Your task to perform on an android device: all mails in gmail Image 0: 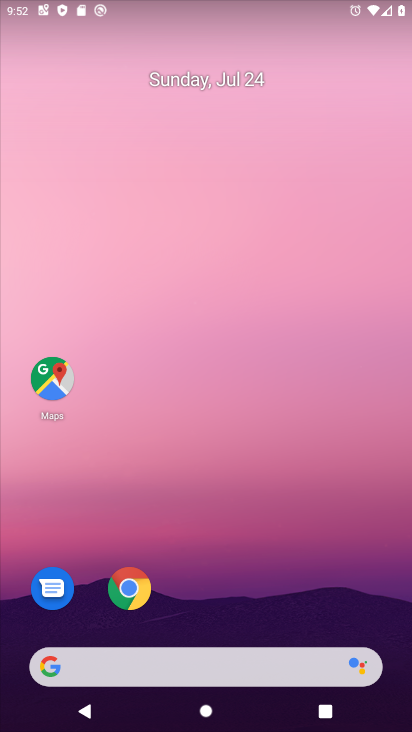
Step 0: drag from (242, 726) to (269, 164)
Your task to perform on an android device: all mails in gmail Image 1: 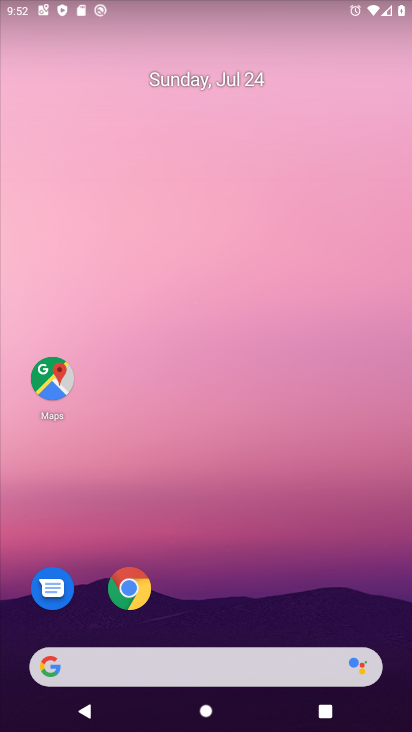
Step 1: drag from (264, 290) to (241, 141)
Your task to perform on an android device: all mails in gmail Image 2: 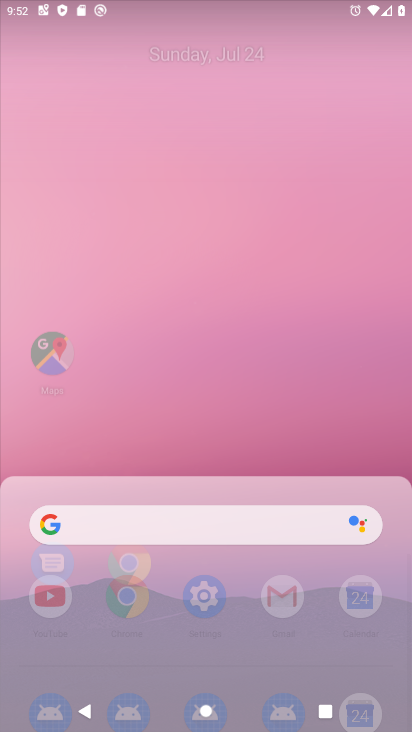
Step 2: drag from (241, 599) to (215, 275)
Your task to perform on an android device: all mails in gmail Image 3: 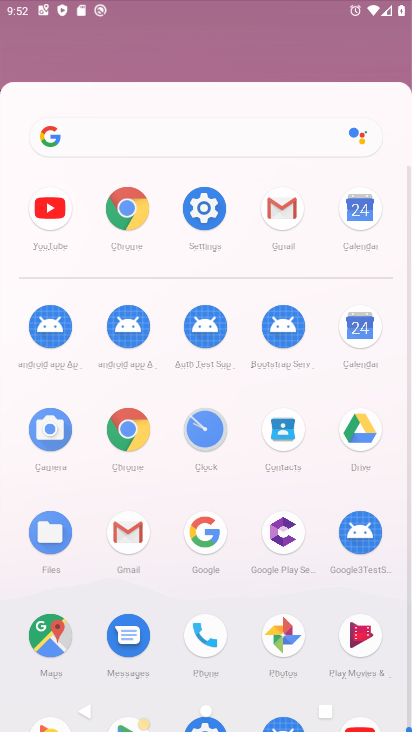
Step 3: drag from (175, 495) to (178, 228)
Your task to perform on an android device: all mails in gmail Image 4: 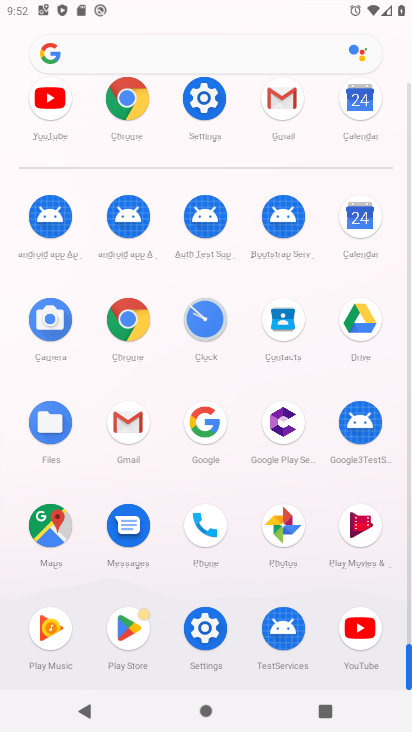
Step 4: click (123, 413)
Your task to perform on an android device: all mails in gmail Image 5: 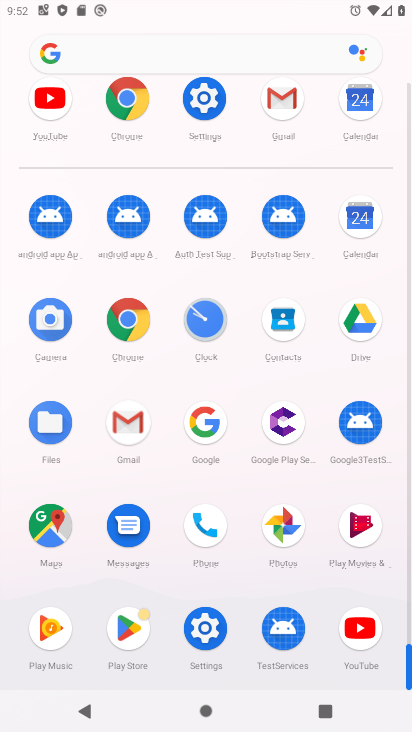
Step 5: click (125, 414)
Your task to perform on an android device: all mails in gmail Image 6: 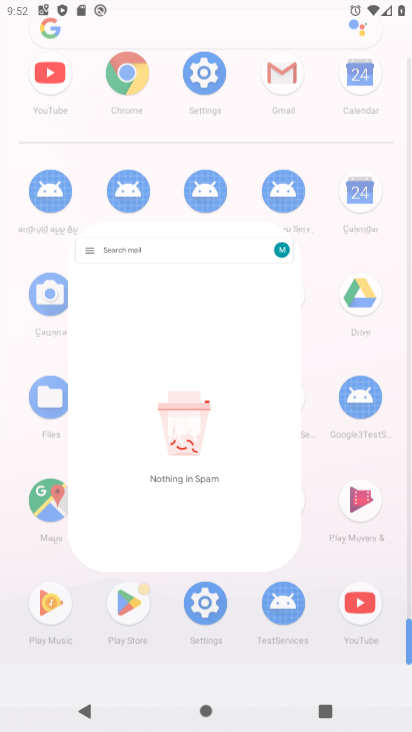
Step 6: click (130, 417)
Your task to perform on an android device: all mails in gmail Image 7: 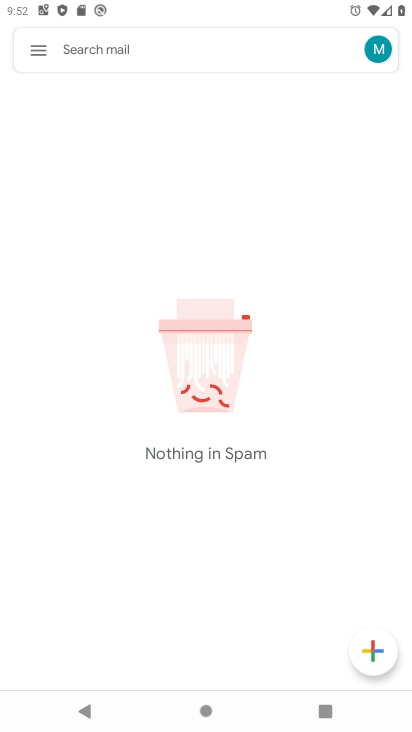
Step 7: click (36, 53)
Your task to perform on an android device: all mails in gmail Image 8: 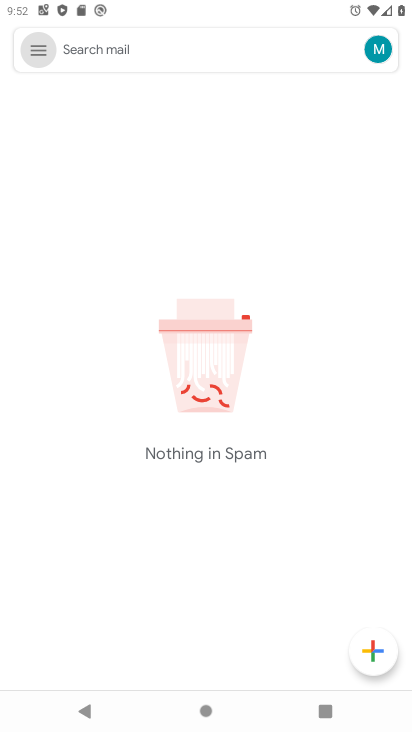
Step 8: click (36, 53)
Your task to perform on an android device: all mails in gmail Image 9: 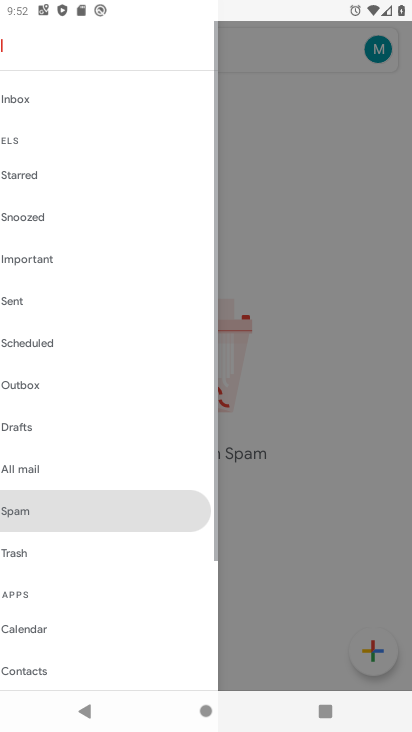
Step 9: click (40, 55)
Your task to perform on an android device: all mails in gmail Image 10: 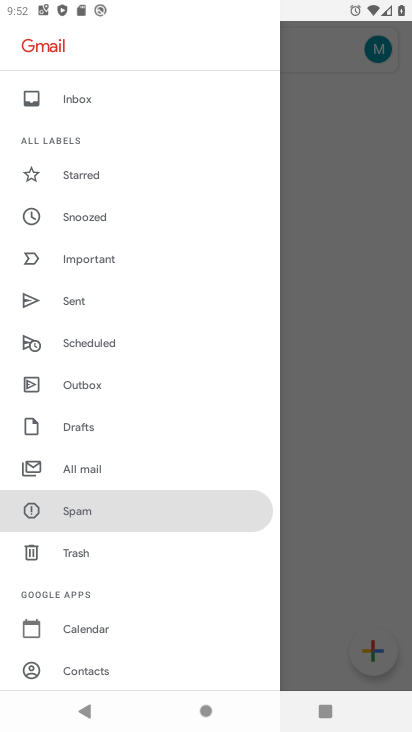
Step 10: click (73, 465)
Your task to perform on an android device: all mails in gmail Image 11: 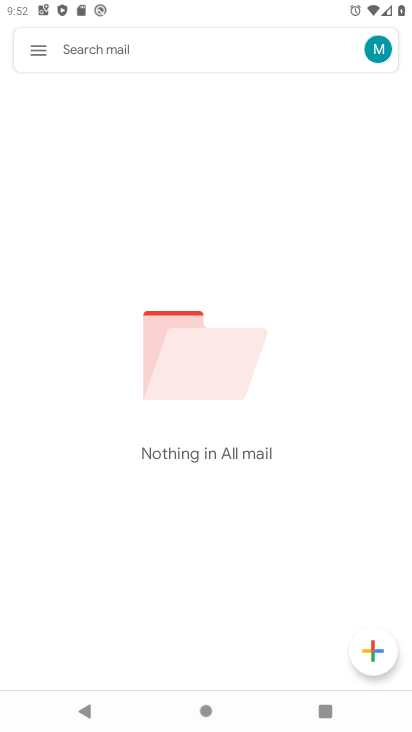
Step 11: task complete